Your task to perform on an android device: turn off airplane mode Image 0: 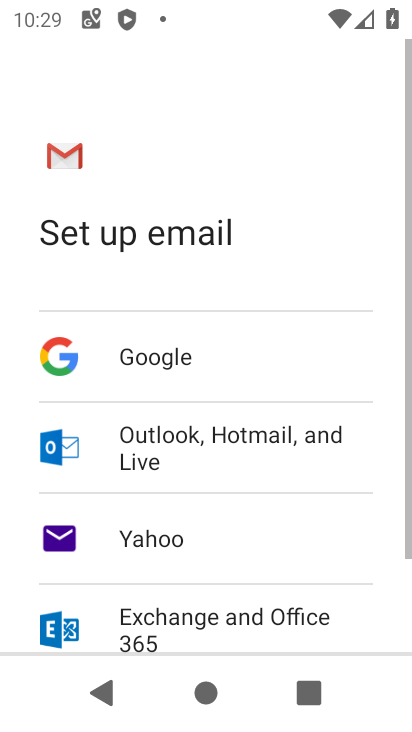
Step 0: press home button
Your task to perform on an android device: turn off airplane mode Image 1: 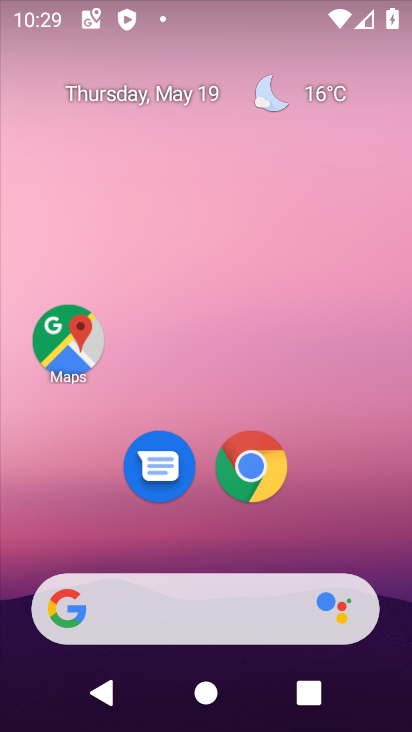
Step 1: drag from (340, 475) to (309, 175)
Your task to perform on an android device: turn off airplane mode Image 2: 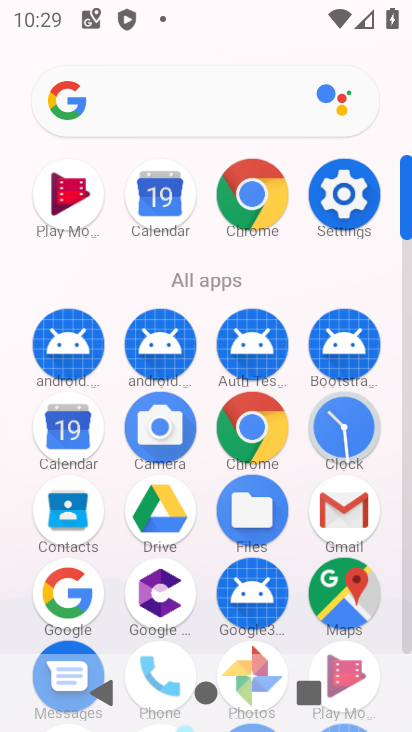
Step 2: click (340, 183)
Your task to perform on an android device: turn off airplane mode Image 3: 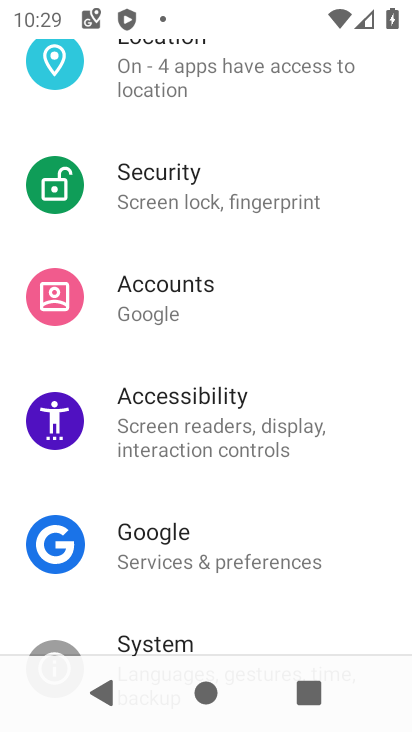
Step 3: drag from (289, 138) to (232, 493)
Your task to perform on an android device: turn off airplane mode Image 4: 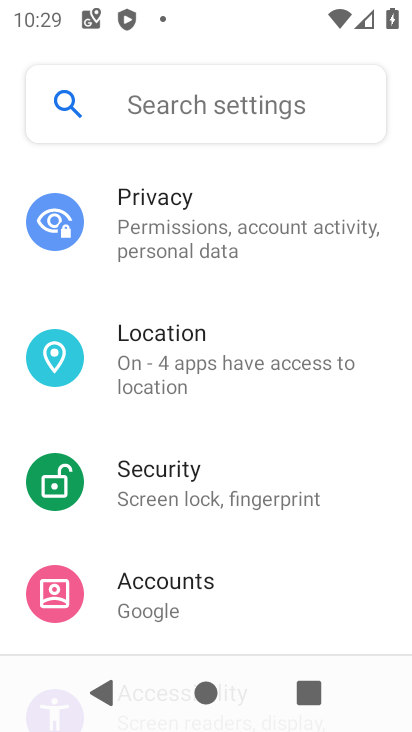
Step 4: drag from (266, 193) to (268, 232)
Your task to perform on an android device: turn off airplane mode Image 5: 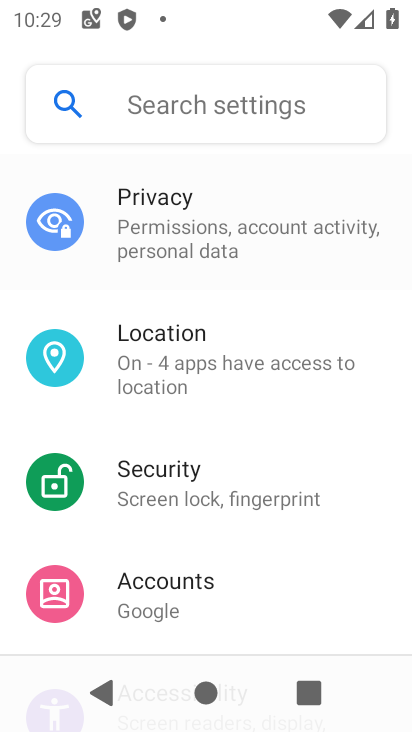
Step 5: drag from (268, 241) to (292, 451)
Your task to perform on an android device: turn off airplane mode Image 6: 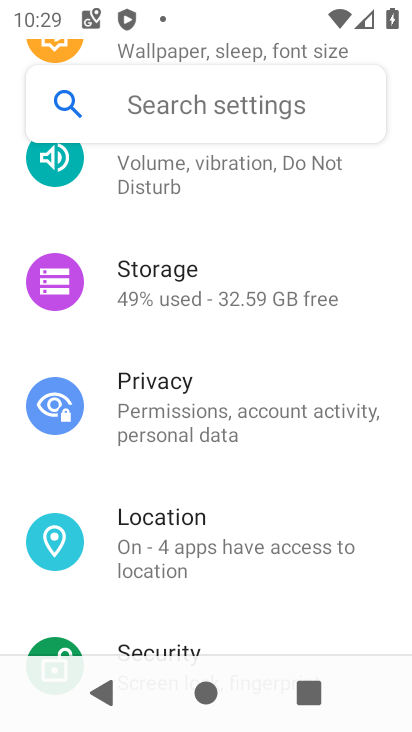
Step 6: drag from (269, 196) to (288, 515)
Your task to perform on an android device: turn off airplane mode Image 7: 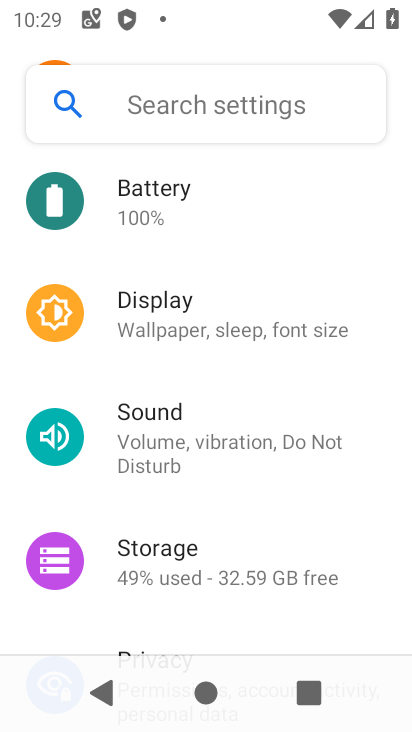
Step 7: drag from (305, 173) to (199, 500)
Your task to perform on an android device: turn off airplane mode Image 8: 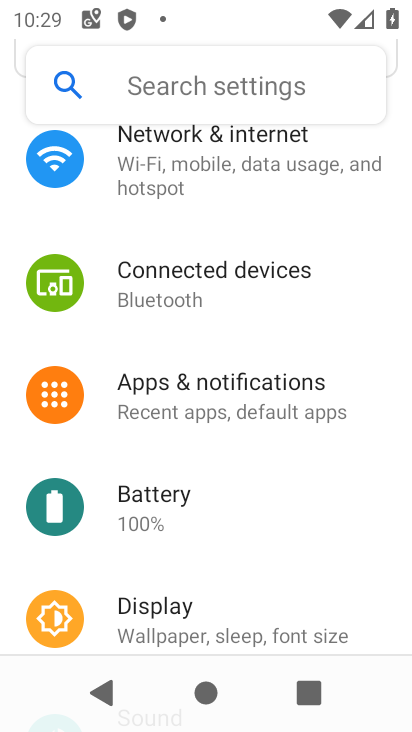
Step 8: drag from (272, 186) to (251, 443)
Your task to perform on an android device: turn off airplane mode Image 9: 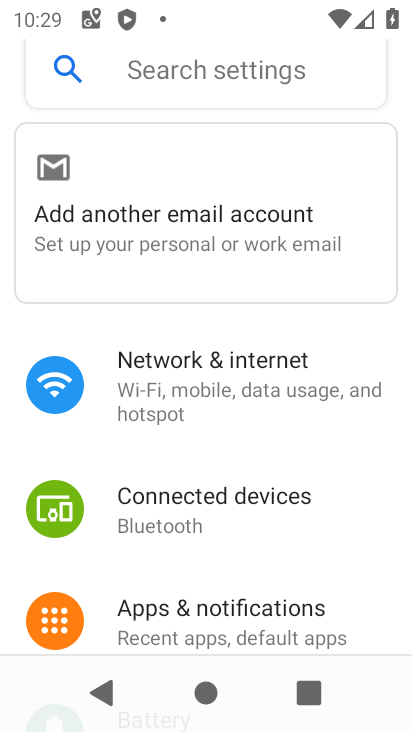
Step 9: click (246, 317)
Your task to perform on an android device: turn off airplane mode Image 10: 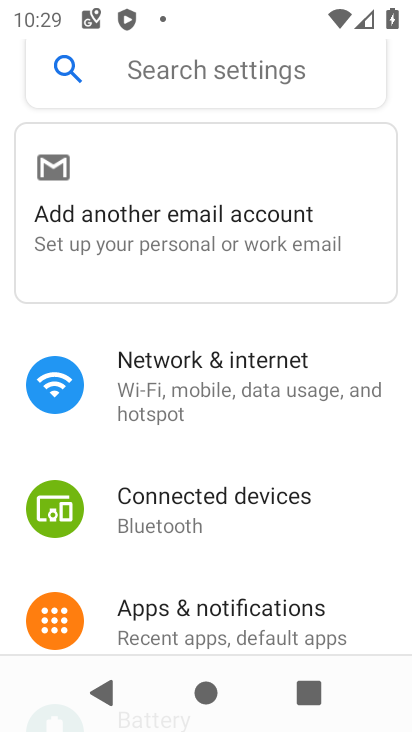
Step 10: click (235, 393)
Your task to perform on an android device: turn off airplane mode Image 11: 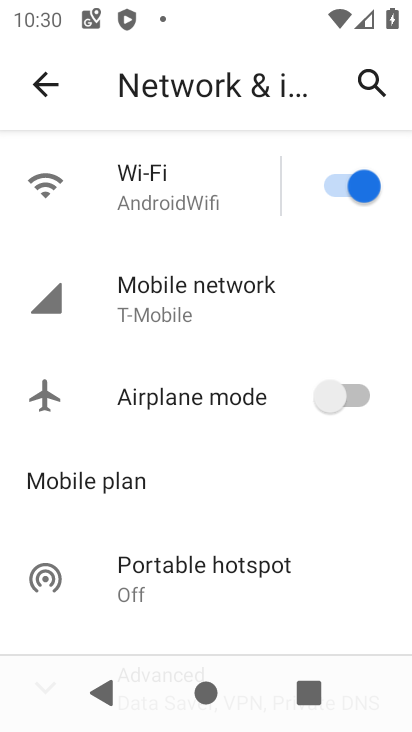
Step 11: task complete